Your task to perform on an android device: Open Chrome and go to settings Image 0: 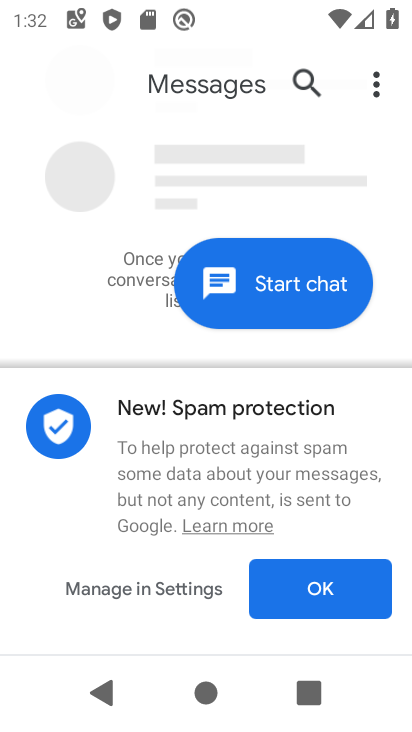
Step 0: press back button
Your task to perform on an android device: Open Chrome and go to settings Image 1: 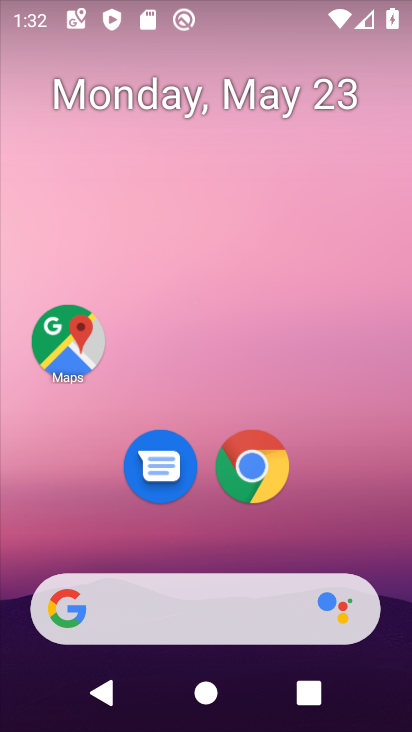
Step 1: click (252, 466)
Your task to perform on an android device: Open Chrome and go to settings Image 2: 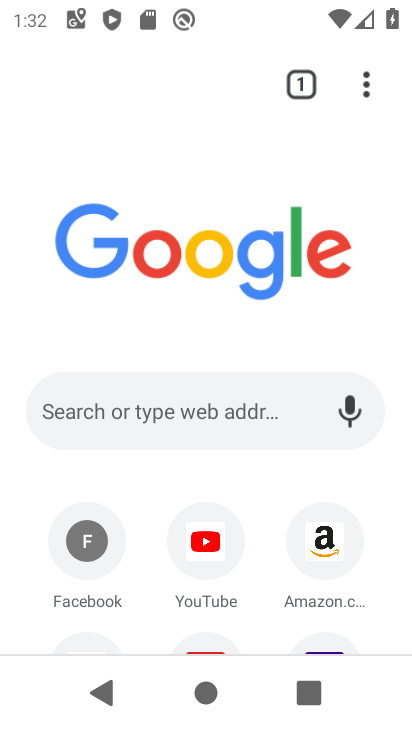
Step 2: click (366, 82)
Your task to perform on an android device: Open Chrome and go to settings Image 3: 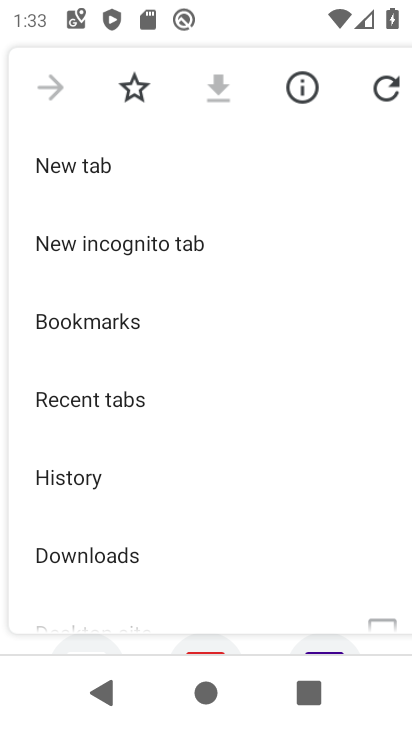
Step 3: drag from (123, 501) to (167, 421)
Your task to perform on an android device: Open Chrome and go to settings Image 4: 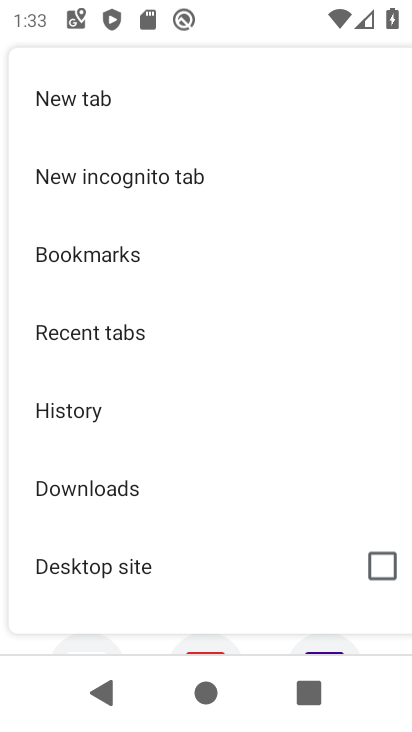
Step 4: drag from (136, 514) to (186, 439)
Your task to perform on an android device: Open Chrome and go to settings Image 5: 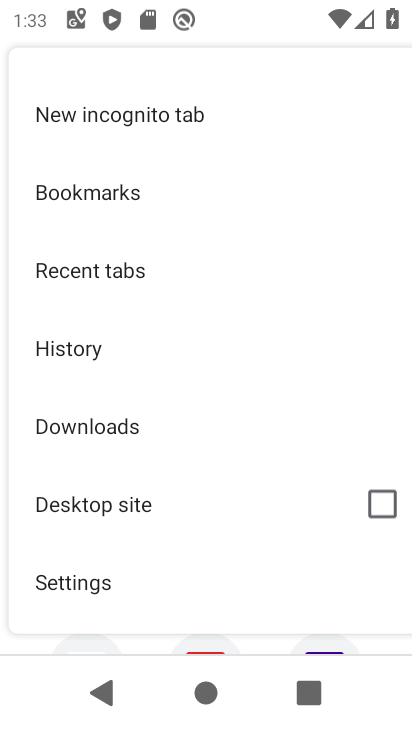
Step 5: drag from (153, 533) to (200, 430)
Your task to perform on an android device: Open Chrome and go to settings Image 6: 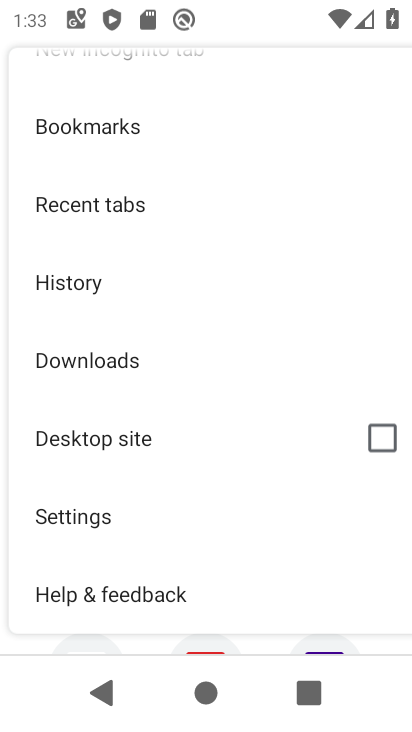
Step 6: click (102, 511)
Your task to perform on an android device: Open Chrome and go to settings Image 7: 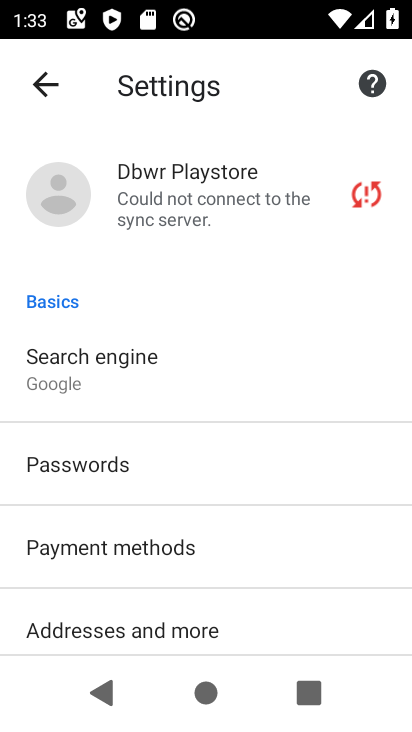
Step 7: task complete